Your task to perform on an android device: show emergency info Image 0: 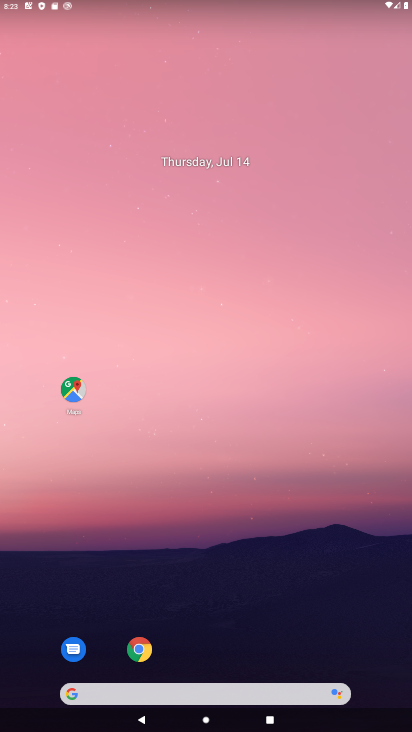
Step 0: drag from (176, 722) to (115, 9)
Your task to perform on an android device: show emergency info Image 1: 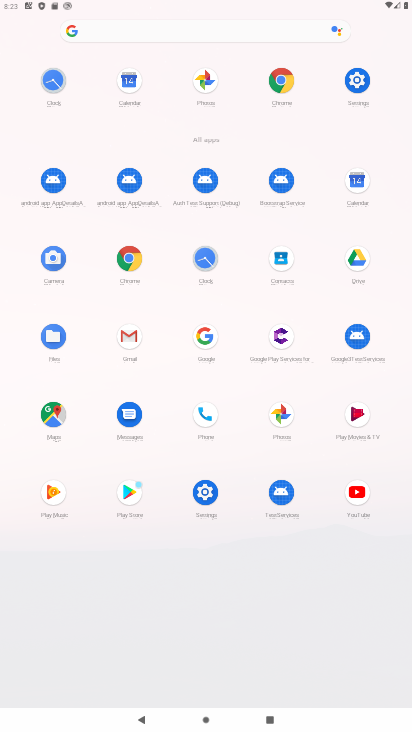
Step 1: click (363, 79)
Your task to perform on an android device: show emergency info Image 2: 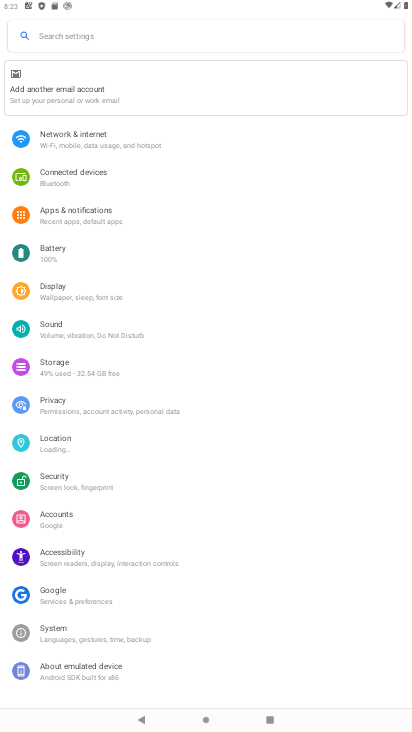
Step 2: click (68, 670)
Your task to perform on an android device: show emergency info Image 3: 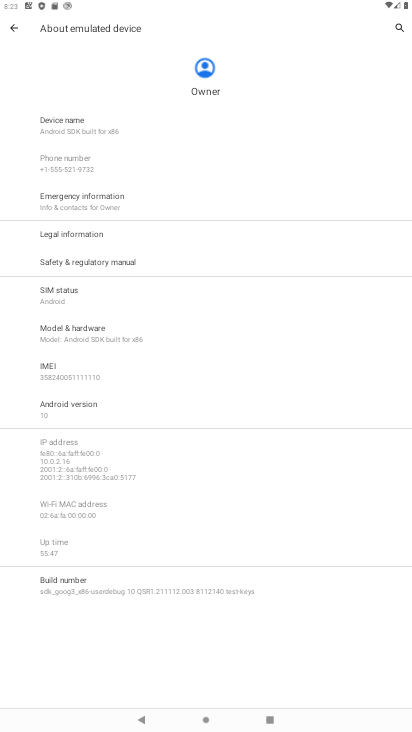
Step 3: click (117, 201)
Your task to perform on an android device: show emergency info Image 4: 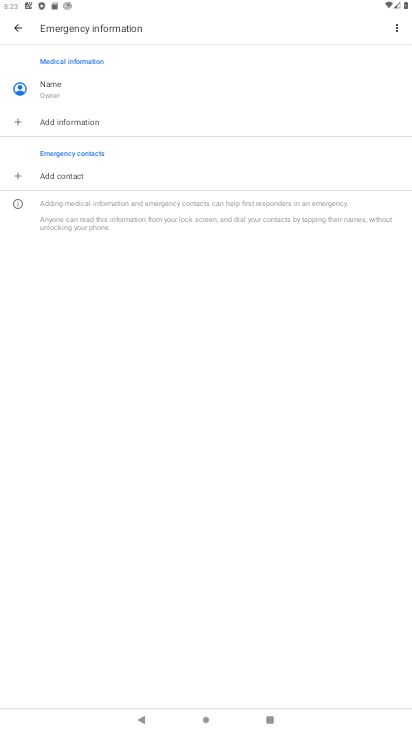
Step 4: task complete